Your task to perform on an android device: Open the web browser Image 0: 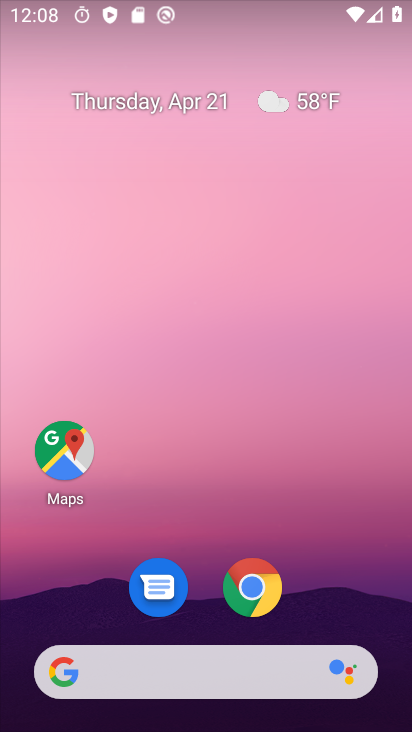
Step 0: click (253, 570)
Your task to perform on an android device: Open the web browser Image 1: 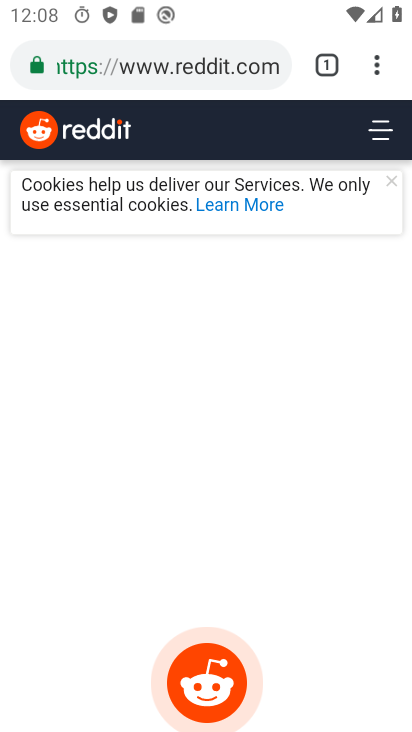
Step 1: task complete